Your task to perform on an android device: Go to CNN.com Image 0: 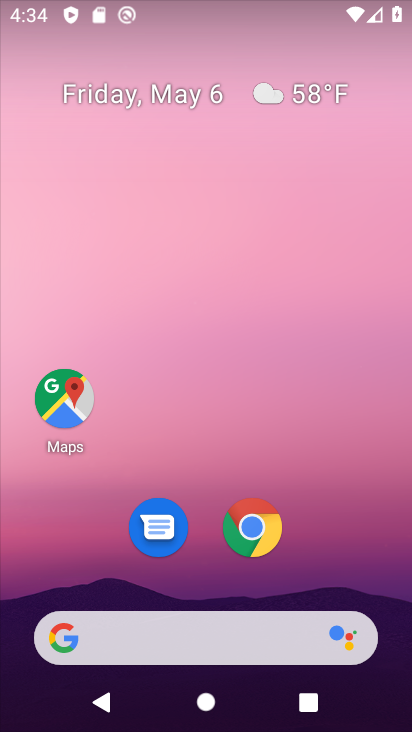
Step 0: click (246, 529)
Your task to perform on an android device: Go to CNN.com Image 1: 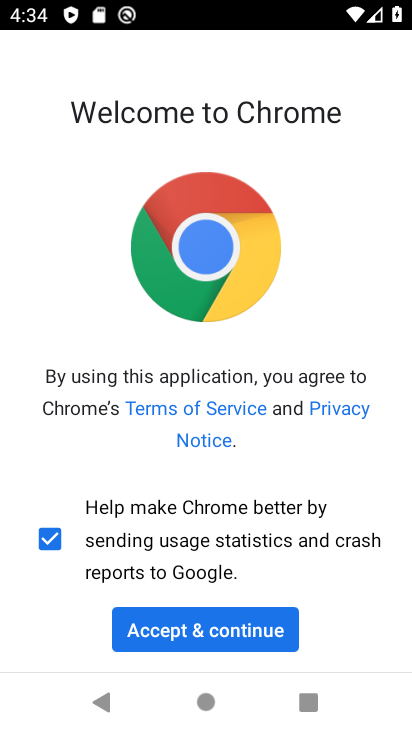
Step 1: click (206, 634)
Your task to perform on an android device: Go to CNN.com Image 2: 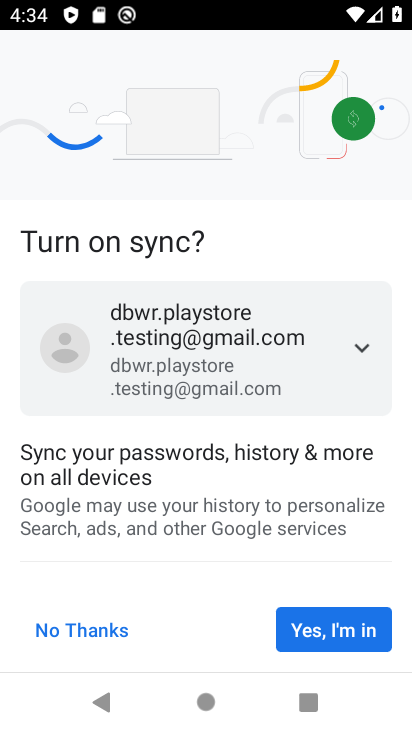
Step 2: click (307, 622)
Your task to perform on an android device: Go to CNN.com Image 3: 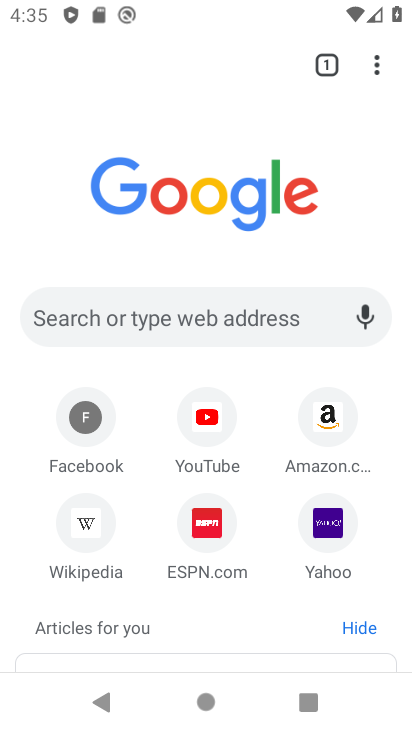
Step 3: click (135, 317)
Your task to perform on an android device: Go to CNN.com Image 4: 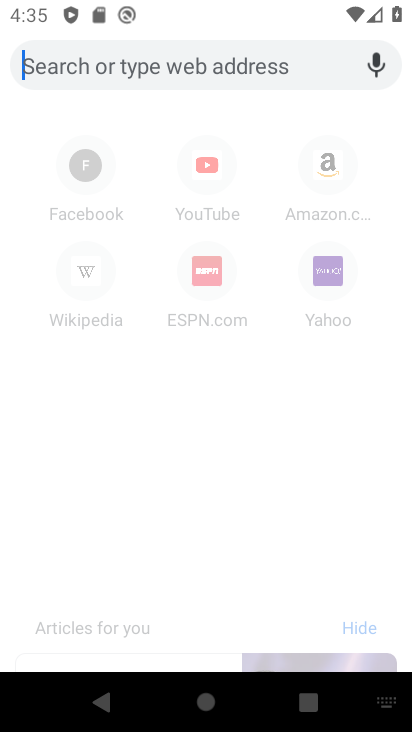
Step 4: type "CNN.com"
Your task to perform on an android device: Go to CNN.com Image 5: 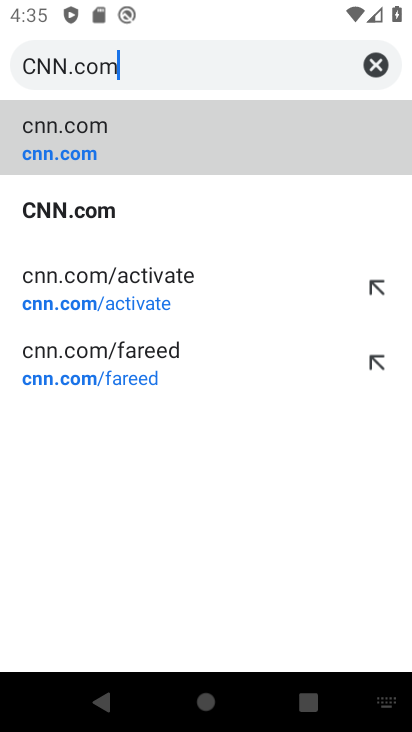
Step 5: click (63, 144)
Your task to perform on an android device: Go to CNN.com Image 6: 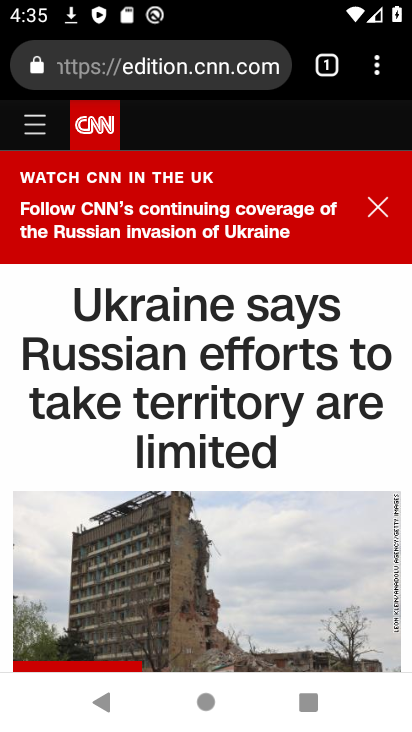
Step 6: task complete